Your task to perform on an android device: star an email in the gmail app Image 0: 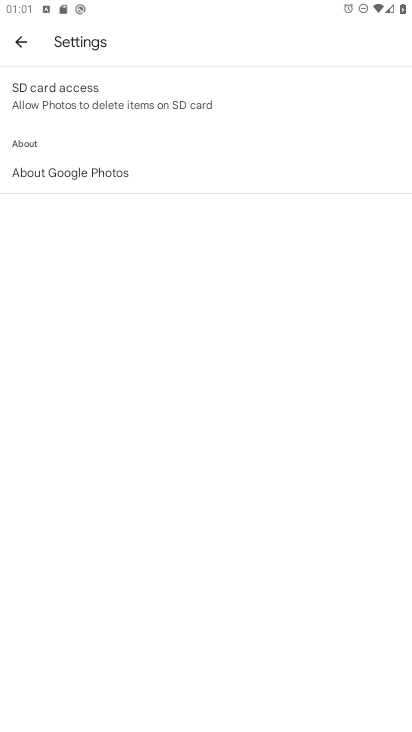
Step 0: press home button
Your task to perform on an android device: star an email in the gmail app Image 1: 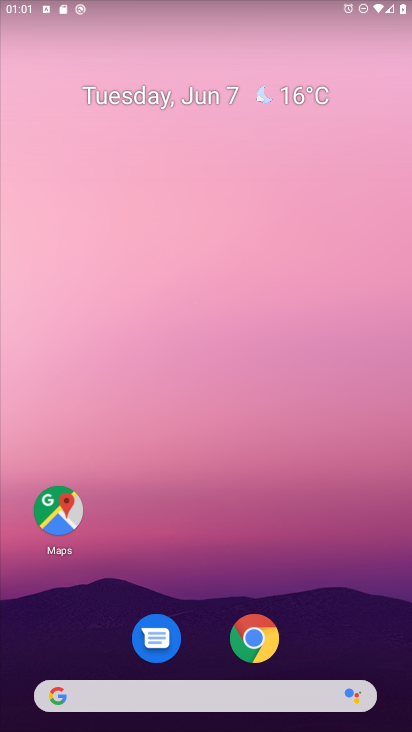
Step 1: drag from (171, 717) to (292, 162)
Your task to perform on an android device: star an email in the gmail app Image 2: 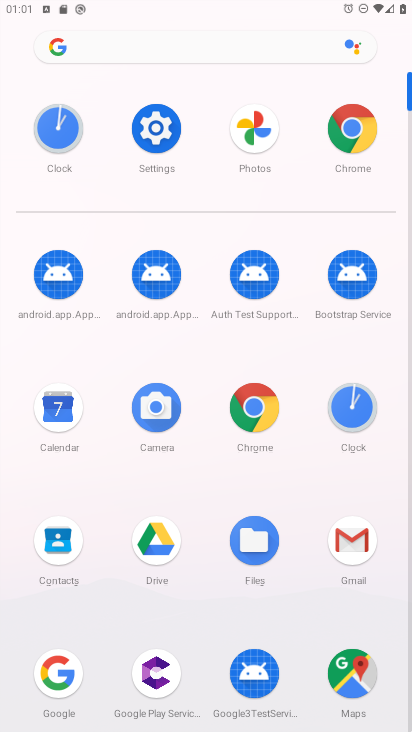
Step 2: click (353, 540)
Your task to perform on an android device: star an email in the gmail app Image 3: 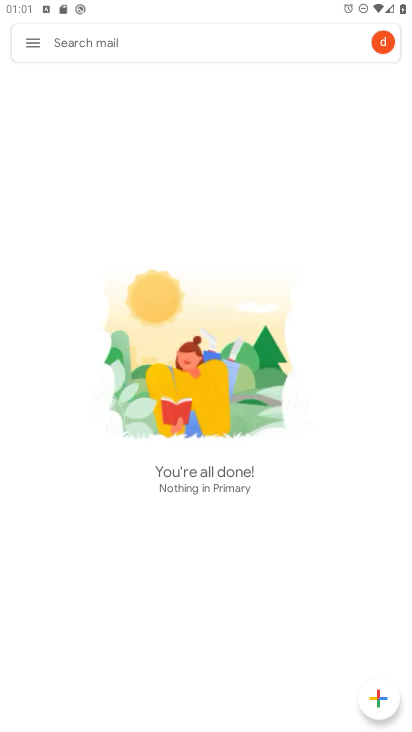
Step 3: click (35, 53)
Your task to perform on an android device: star an email in the gmail app Image 4: 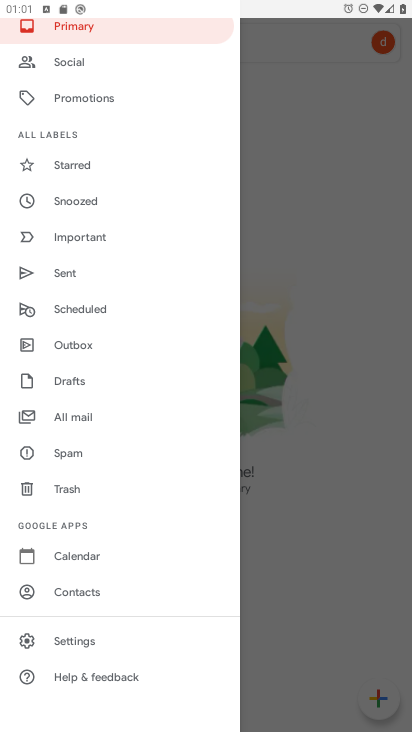
Step 4: click (71, 165)
Your task to perform on an android device: star an email in the gmail app Image 5: 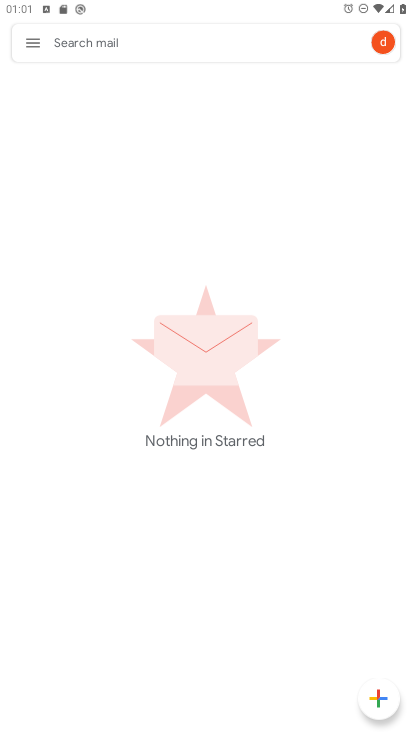
Step 5: task complete